Your task to perform on an android device: Go to calendar. Show me events next week Image 0: 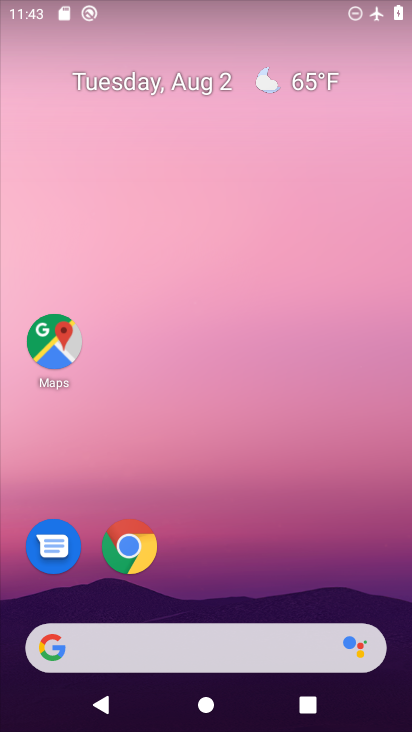
Step 0: drag from (232, 598) to (191, 227)
Your task to perform on an android device: Go to calendar. Show me events next week Image 1: 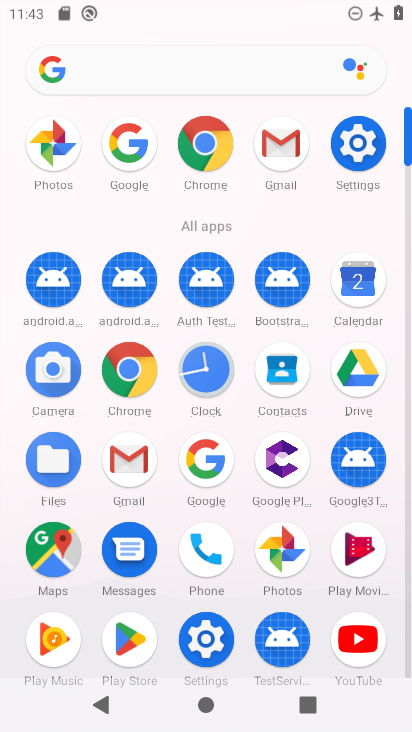
Step 1: click (366, 290)
Your task to perform on an android device: Go to calendar. Show me events next week Image 2: 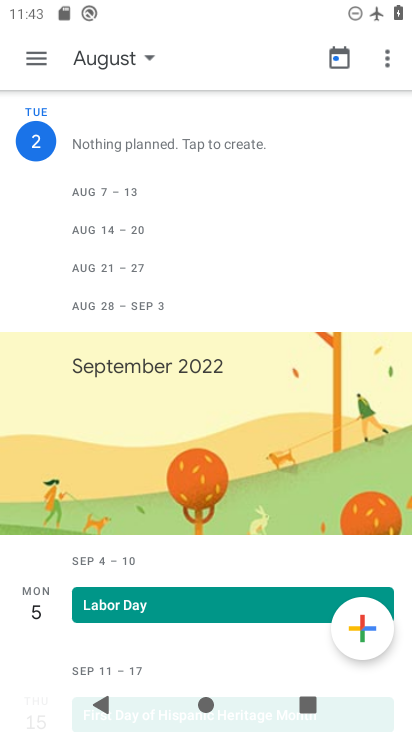
Step 2: click (115, 52)
Your task to perform on an android device: Go to calendar. Show me events next week Image 3: 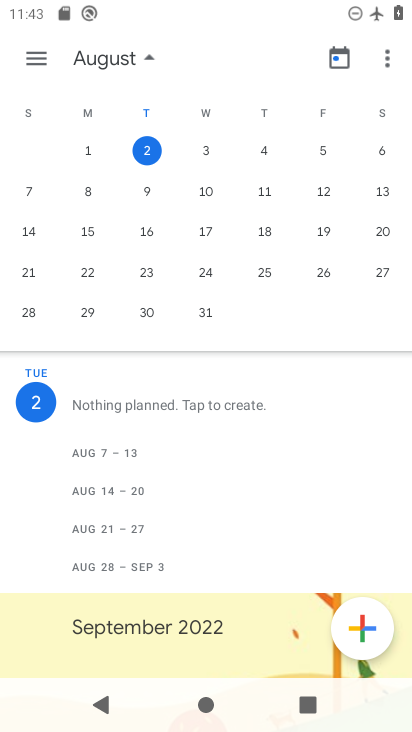
Step 3: click (31, 193)
Your task to perform on an android device: Go to calendar. Show me events next week Image 4: 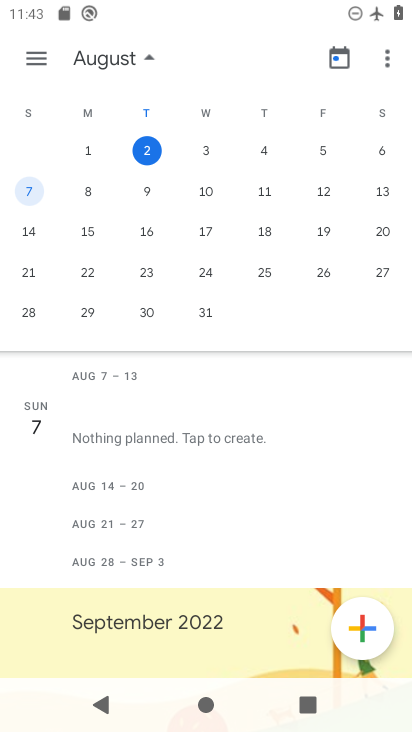
Step 4: task complete